Your task to perform on an android device: turn off location history Image 0: 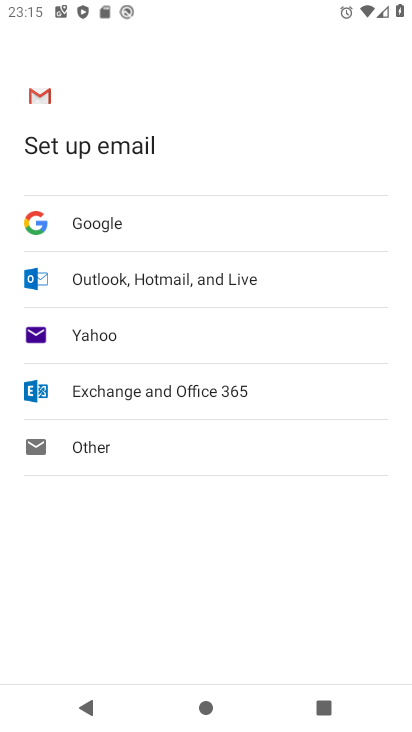
Step 0: press home button
Your task to perform on an android device: turn off location history Image 1: 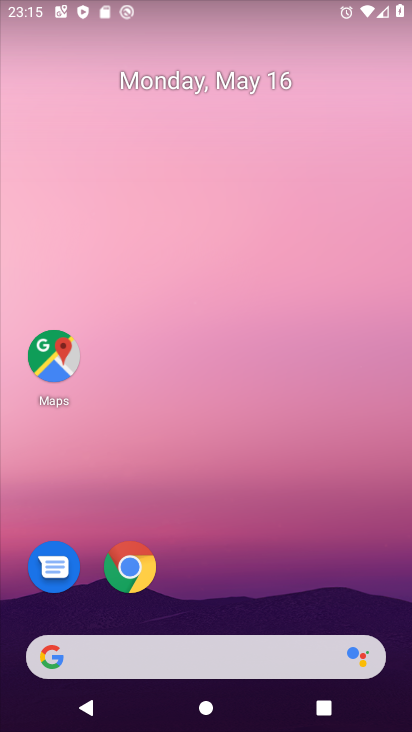
Step 1: drag from (254, 465) to (180, 22)
Your task to perform on an android device: turn off location history Image 2: 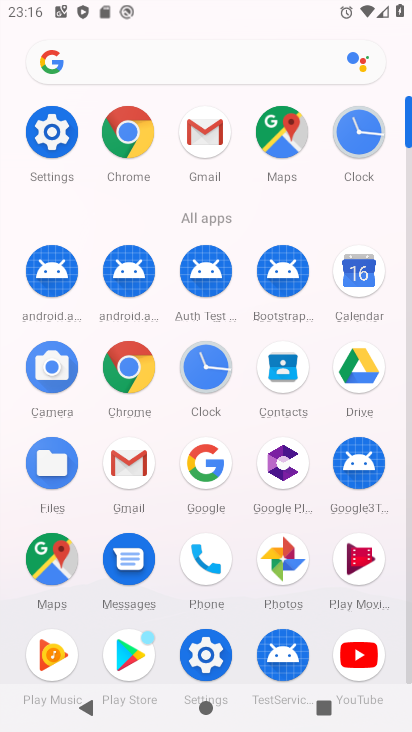
Step 2: click (277, 129)
Your task to perform on an android device: turn off location history Image 3: 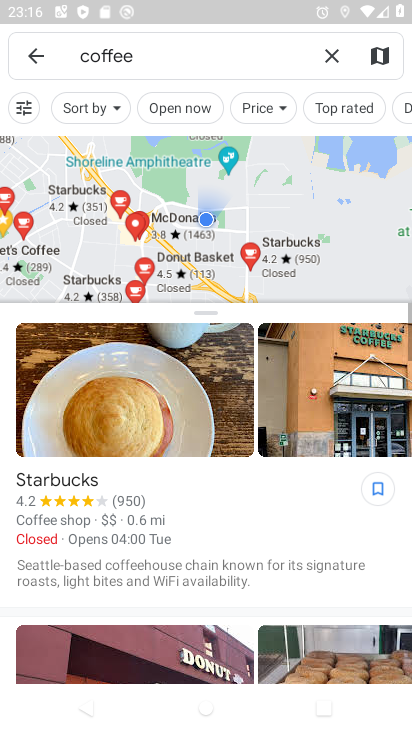
Step 3: click (327, 54)
Your task to perform on an android device: turn off location history Image 4: 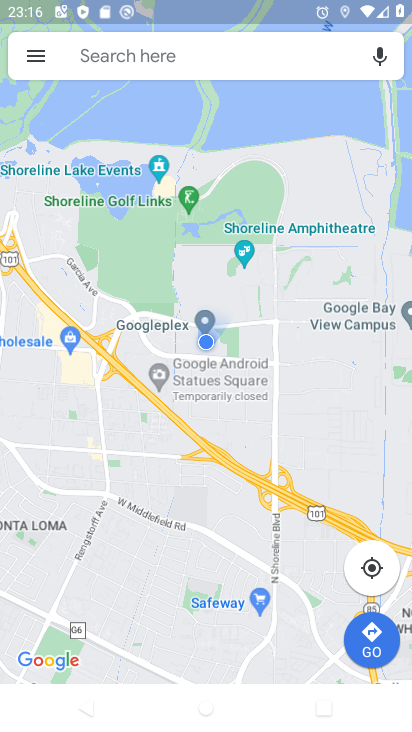
Step 4: click (26, 54)
Your task to perform on an android device: turn off location history Image 5: 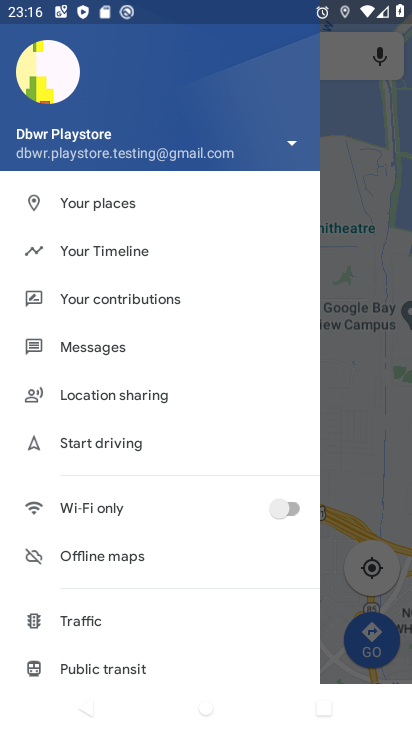
Step 5: click (114, 250)
Your task to perform on an android device: turn off location history Image 6: 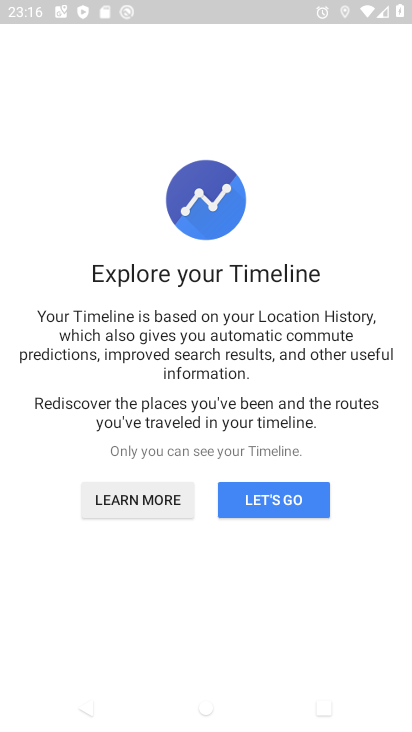
Step 6: click (246, 503)
Your task to perform on an android device: turn off location history Image 7: 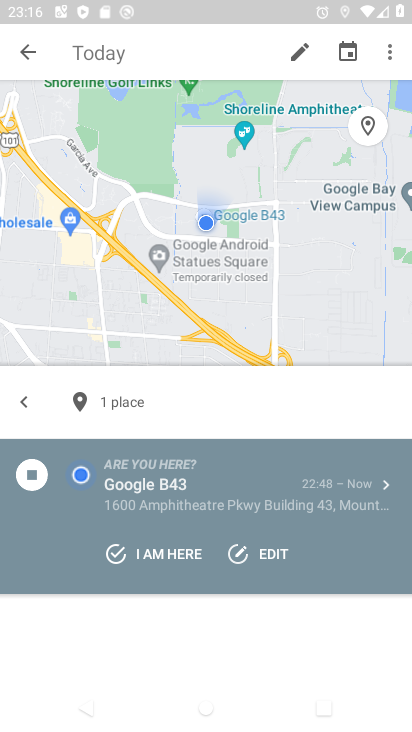
Step 7: click (387, 50)
Your task to perform on an android device: turn off location history Image 8: 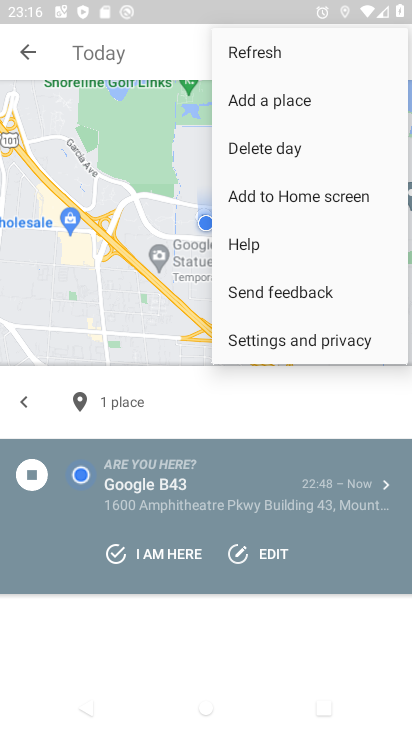
Step 8: click (291, 337)
Your task to perform on an android device: turn off location history Image 9: 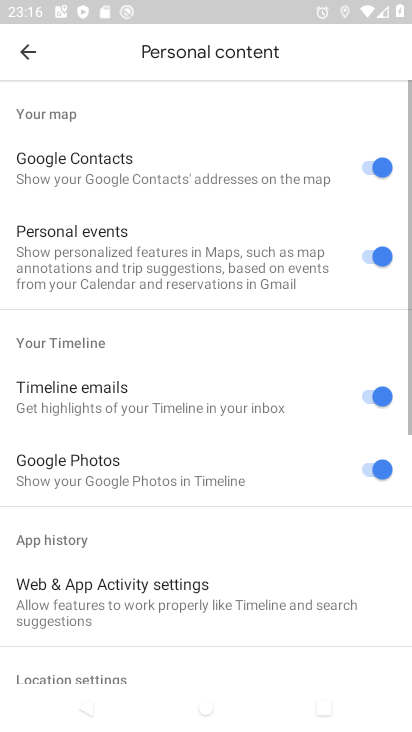
Step 9: click (268, 513)
Your task to perform on an android device: turn off location history Image 10: 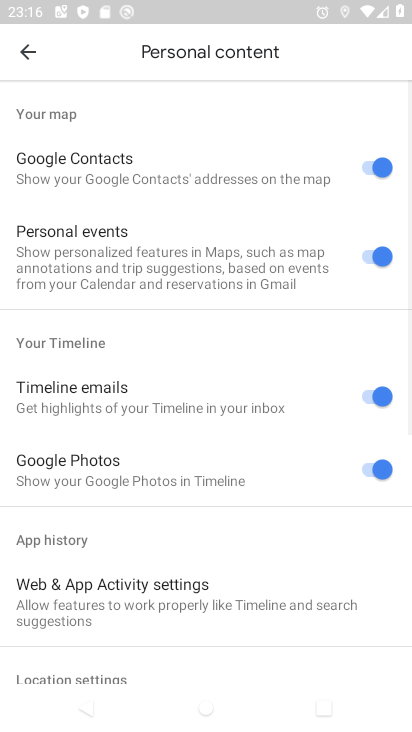
Step 10: drag from (268, 513) to (234, 221)
Your task to perform on an android device: turn off location history Image 11: 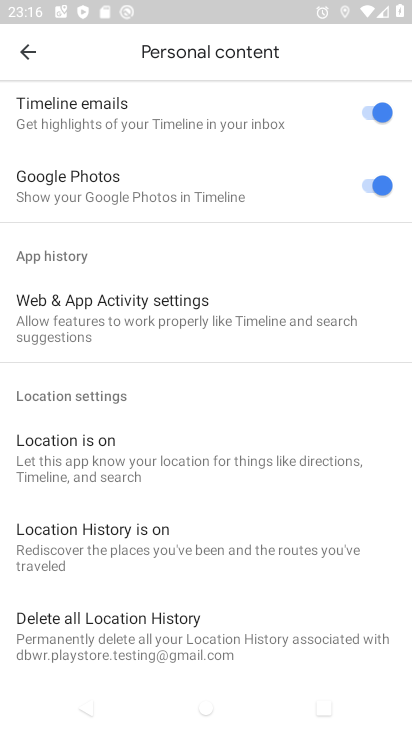
Step 11: drag from (278, 562) to (266, 371)
Your task to perform on an android device: turn off location history Image 12: 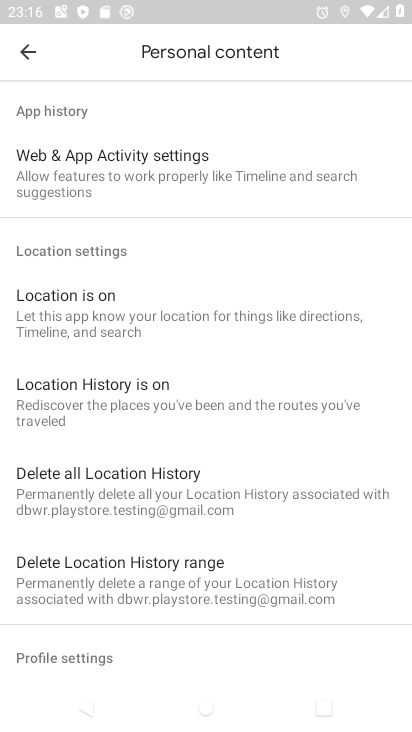
Step 12: click (121, 380)
Your task to perform on an android device: turn off location history Image 13: 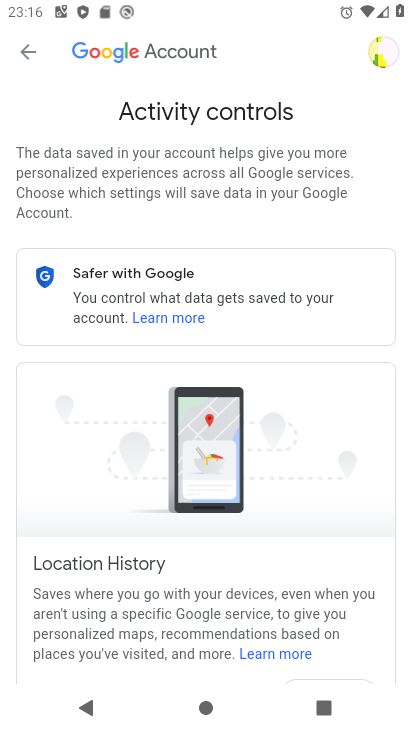
Step 13: drag from (266, 479) to (237, 226)
Your task to perform on an android device: turn off location history Image 14: 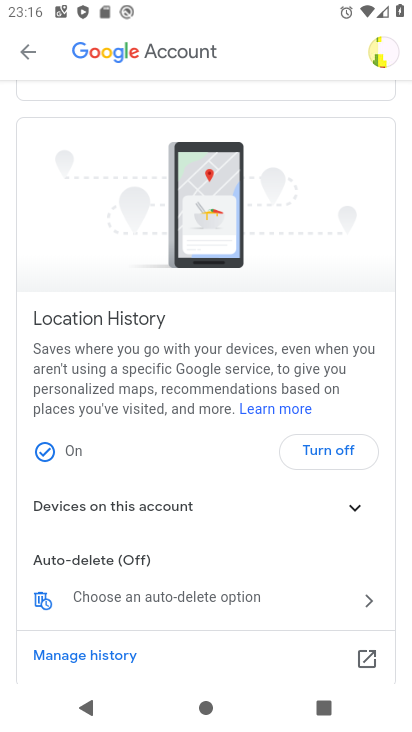
Step 14: click (329, 446)
Your task to perform on an android device: turn off location history Image 15: 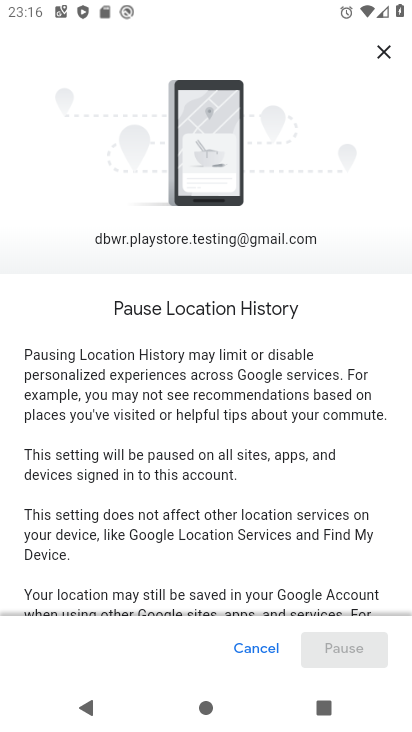
Step 15: drag from (252, 493) to (218, 200)
Your task to perform on an android device: turn off location history Image 16: 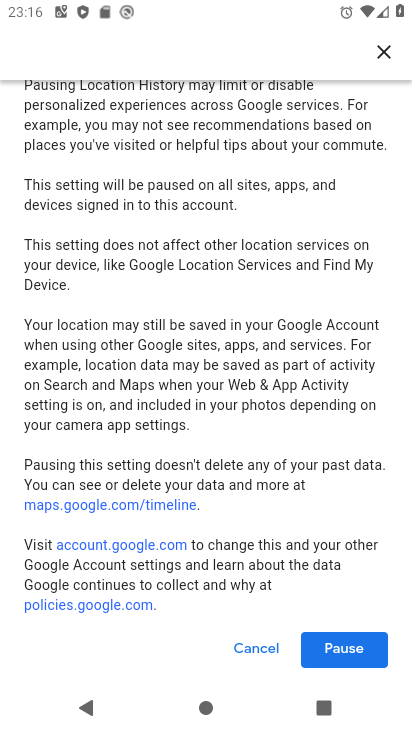
Step 16: click (343, 653)
Your task to perform on an android device: turn off location history Image 17: 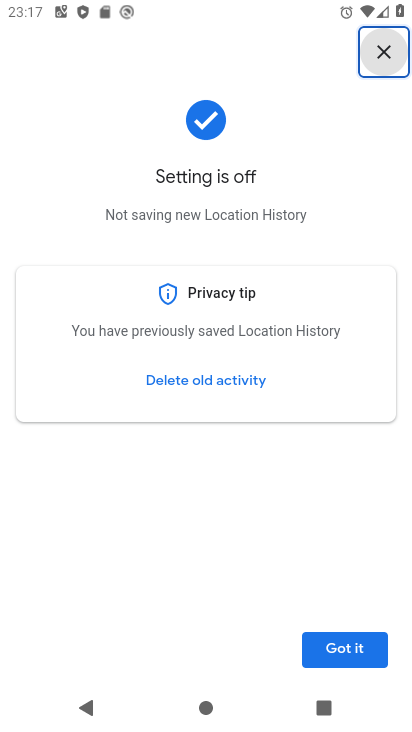
Step 17: click (331, 648)
Your task to perform on an android device: turn off location history Image 18: 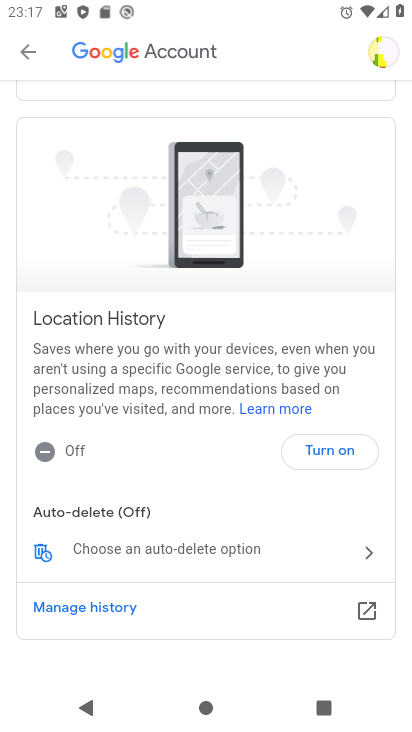
Step 18: task complete